Your task to perform on an android device: allow notifications from all sites in the chrome app Image 0: 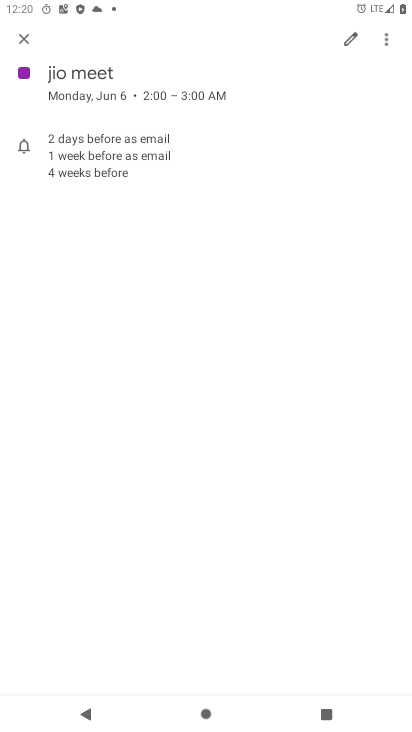
Step 0: press home button
Your task to perform on an android device: allow notifications from all sites in the chrome app Image 1: 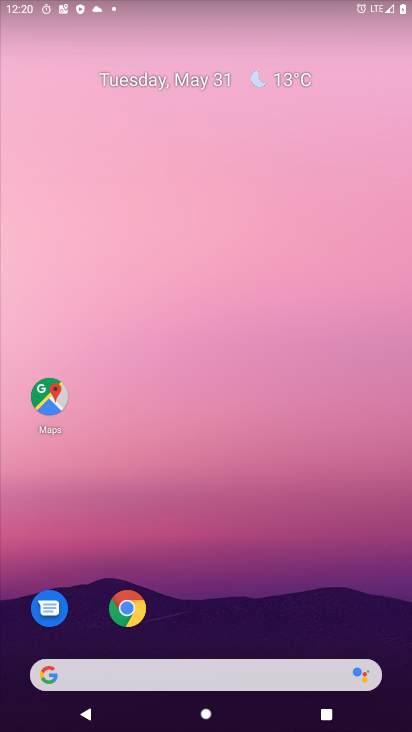
Step 1: click (135, 622)
Your task to perform on an android device: allow notifications from all sites in the chrome app Image 2: 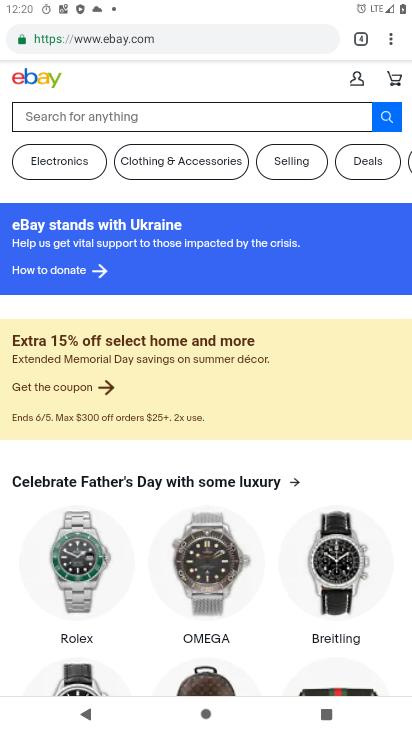
Step 2: click (389, 43)
Your task to perform on an android device: allow notifications from all sites in the chrome app Image 3: 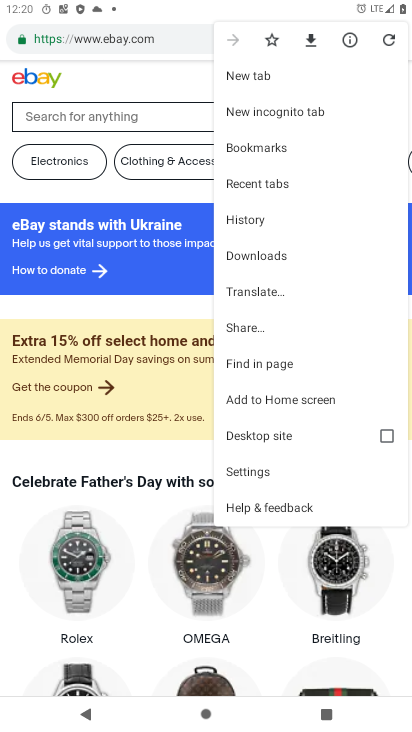
Step 3: click (248, 471)
Your task to perform on an android device: allow notifications from all sites in the chrome app Image 4: 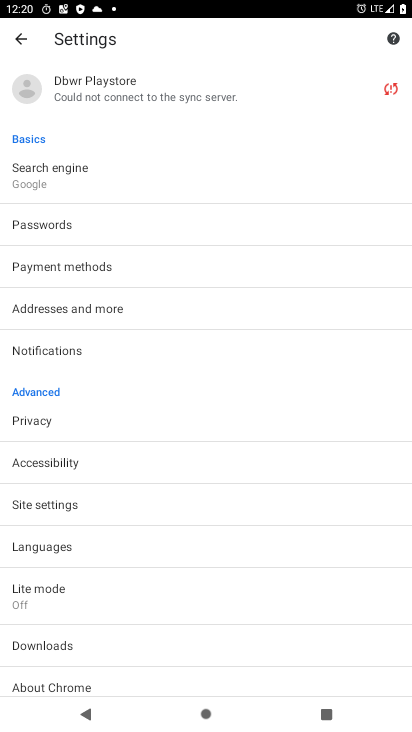
Step 4: click (44, 509)
Your task to perform on an android device: allow notifications from all sites in the chrome app Image 5: 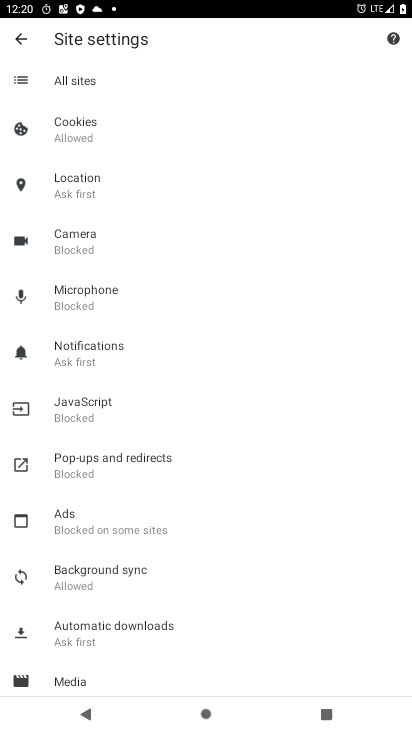
Step 5: click (51, 356)
Your task to perform on an android device: allow notifications from all sites in the chrome app Image 6: 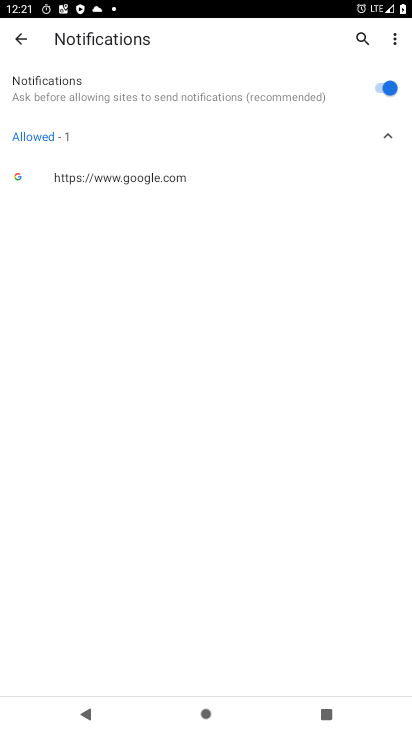
Step 6: click (390, 88)
Your task to perform on an android device: allow notifications from all sites in the chrome app Image 7: 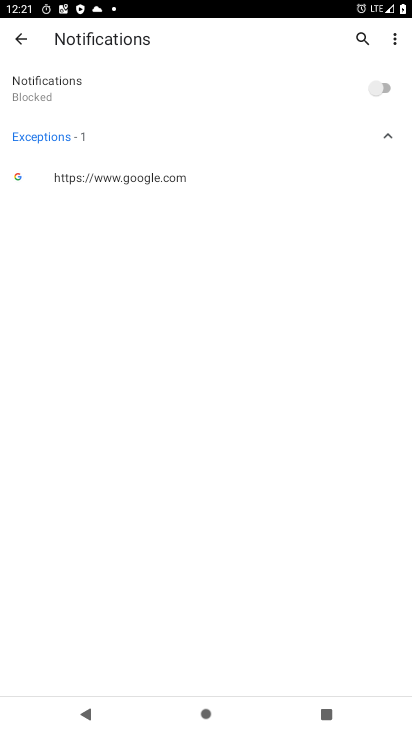
Step 7: click (390, 88)
Your task to perform on an android device: allow notifications from all sites in the chrome app Image 8: 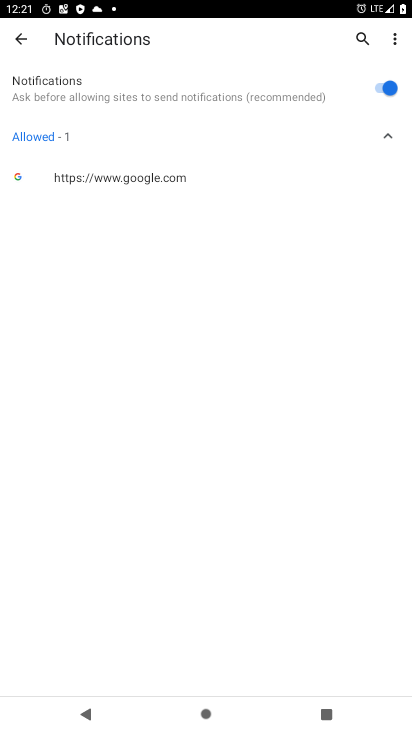
Step 8: click (387, 138)
Your task to perform on an android device: allow notifications from all sites in the chrome app Image 9: 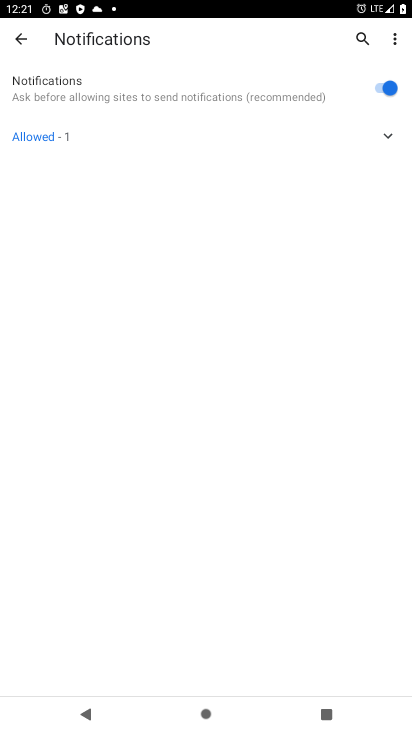
Step 9: task complete